Your task to perform on an android device: Open the map Image 0: 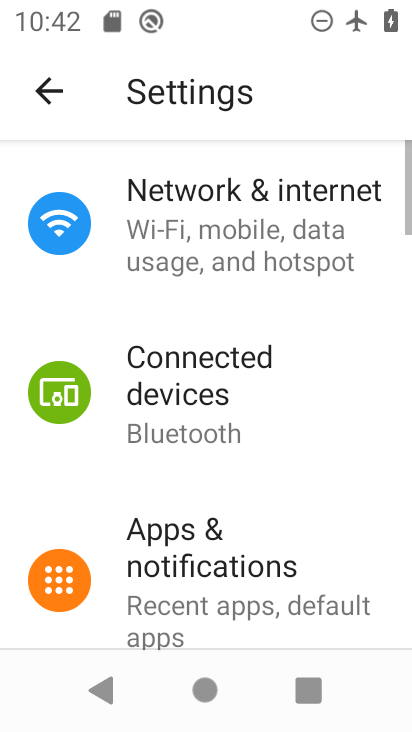
Step 0: press home button
Your task to perform on an android device: Open the map Image 1: 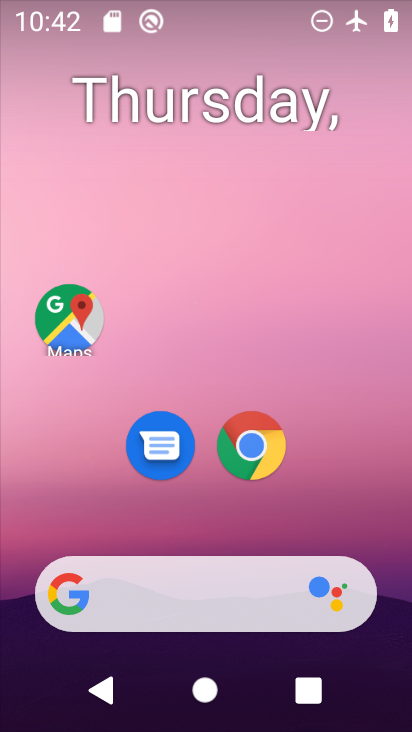
Step 1: click (76, 343)
Your task to perform on an android device: Open the map Image 2: 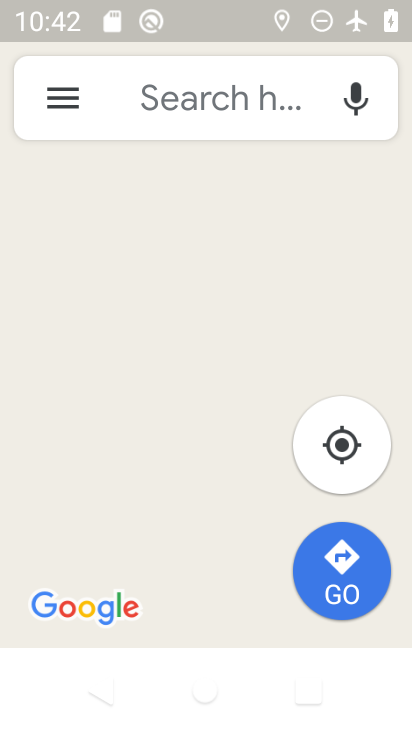
Step 2: task complete